Your task to perform on an android device: When is my next meeting? Image 0: 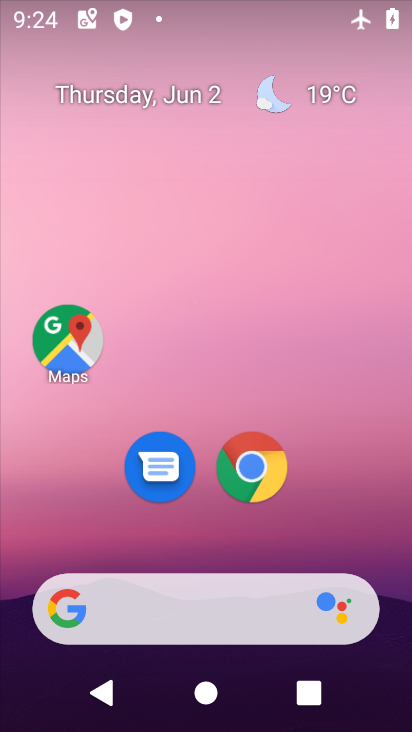
Step 0: drag from (222, 450) to (232, 86)
Your task to perform on an android device: When is my next meeting? Image 1: 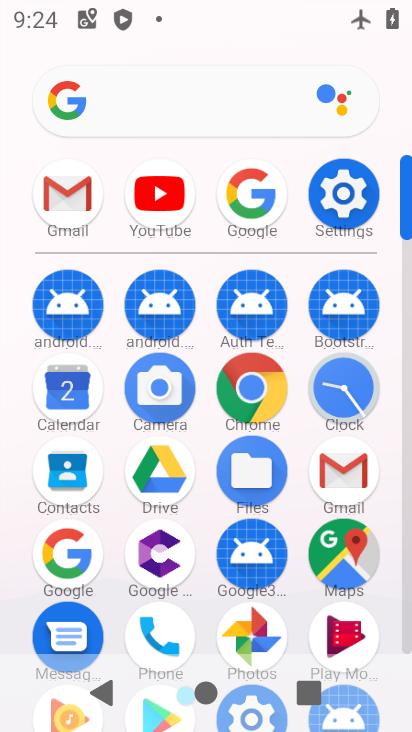
Step 1: click (74, 416)
Your task to perform on an android device: When is my next meeting? Image 2: 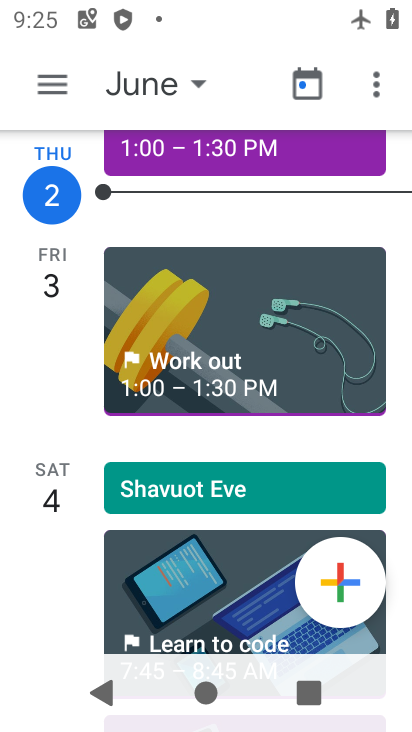
Step 2: task complete